Your task to perform on an android device: turn on data saver in the chrome app Image 0: 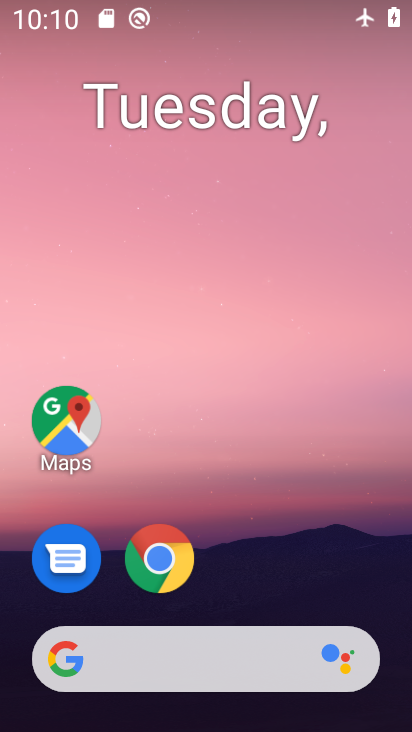
Step 0: drag from (331, 596) to (365, 49)
Your task to perform on an android device: turn on data saver in the chrome app Image 1: 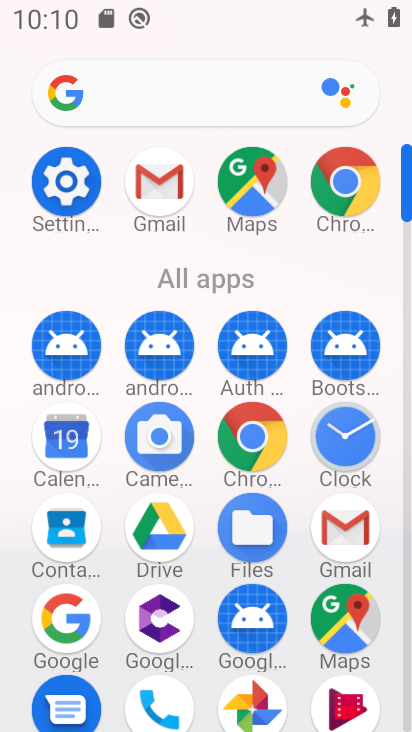
Step 1: click (352, 182)
Your task to perform on an android device: turn on data saver in the chrome app Image 2: 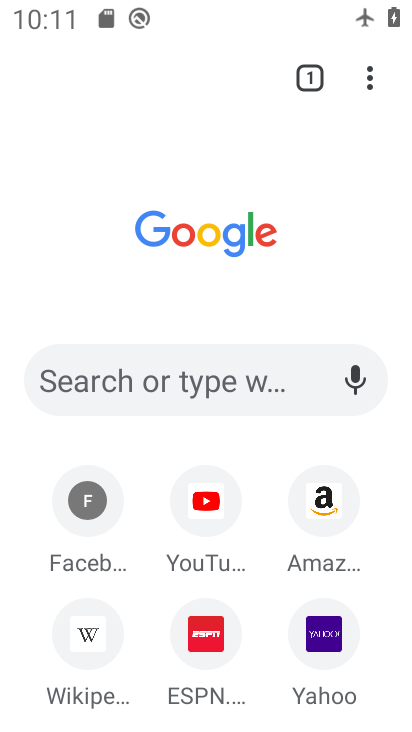
Step 2: click (371, 87)
Your task to perform on an android device: turn on data saver in the chrome app Image 3: 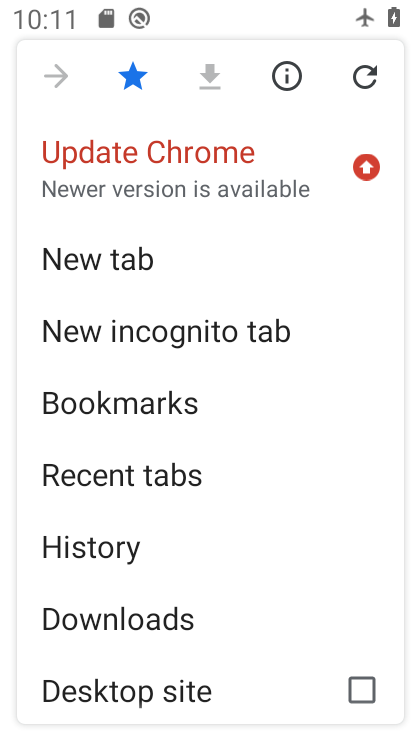
Step 3: drag from (336, 403) to (342, 306)
Your task to perform on an android device: turn on data saver in the chrome app Image 4: 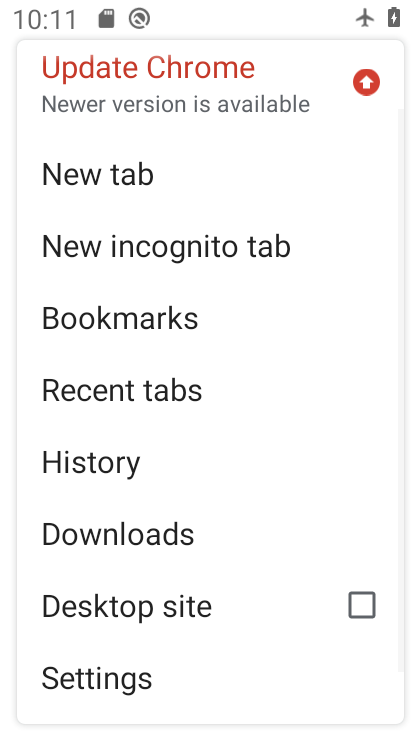
Step 4: drag from (321, 407) to (325, 329)
Your task to perform on an android device: turn on data saver in the chrome app Image 5: 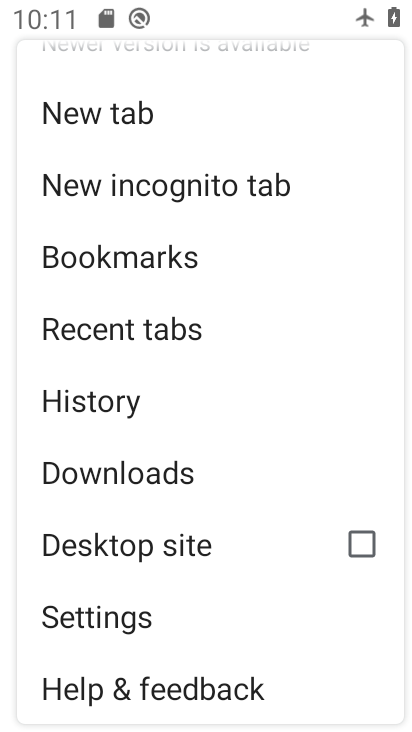
Step 5: drag from (306, 405) to (307, 326)
Your task to perform on an android device: turn on data saver in the chrome app Image 6: 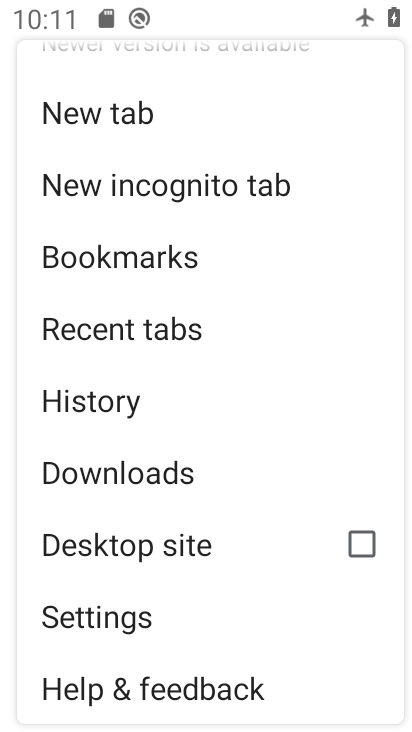
Step 6: click (231, 585)
Your task to perform on an android device: turn on data saver in the chrome app Image 7: 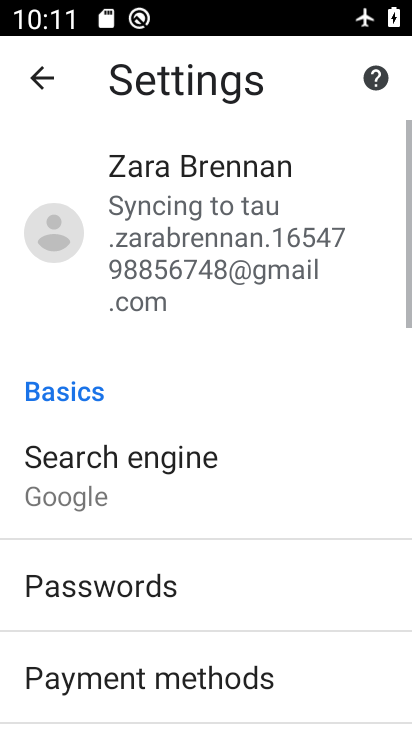
Step 7: drag from (294, 569) to (307, 487)
Your task to perform on an android device: turn on data saver in the chrome app Image 8: 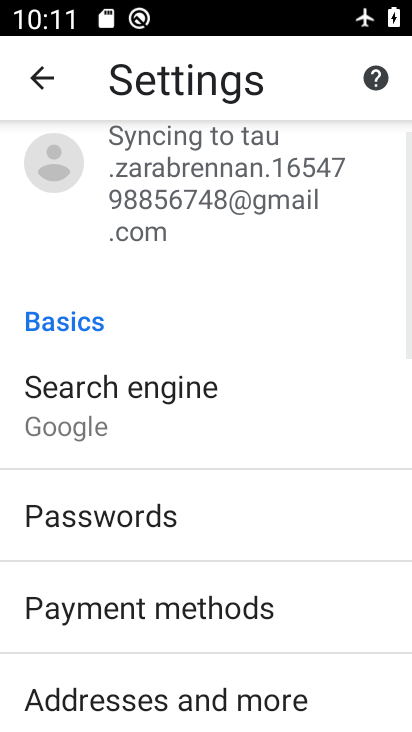
Step 8: drag from (318, 560) to (327, 449)
Your task to perform on an android device: turn on data saver in the chrome app Image 9: 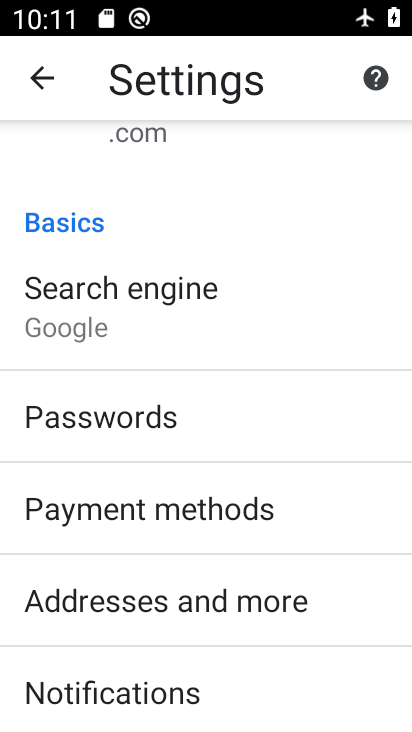
Step 9: drag from (340, 542) to (344, 442)
Your task to perform on an android device: turn on data saver in the chrome app Image 10: 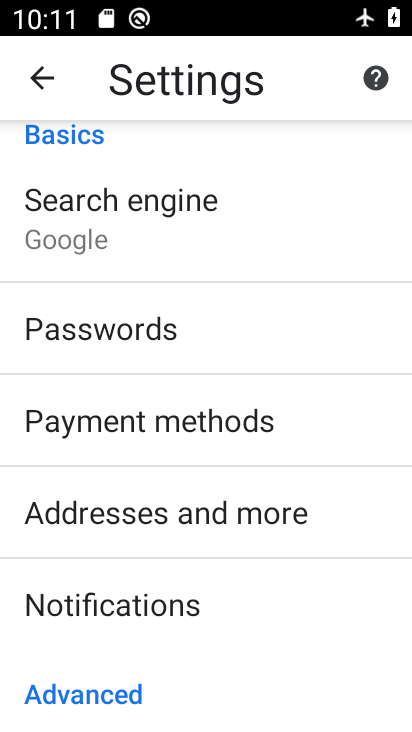
Step 10: drag from (345, 536) to (352, 445)
Your task to perform on an android device: turn on data saver in the chrome app Image 11: 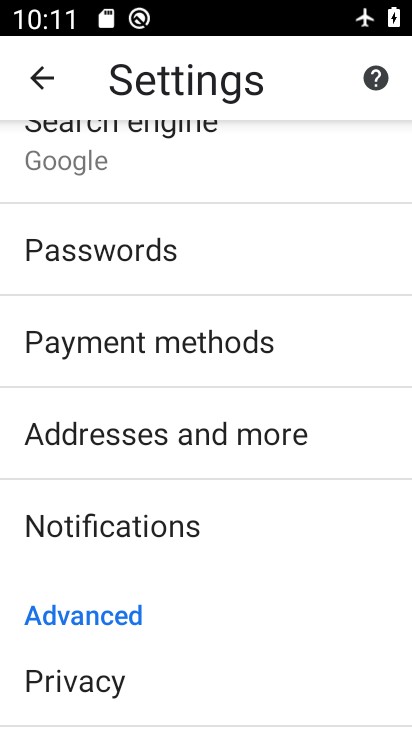
Step 11: drag from (352, 541) to (356, 459)
Your task to perform on an android device: turn on data saver in the chrome app Image 12: 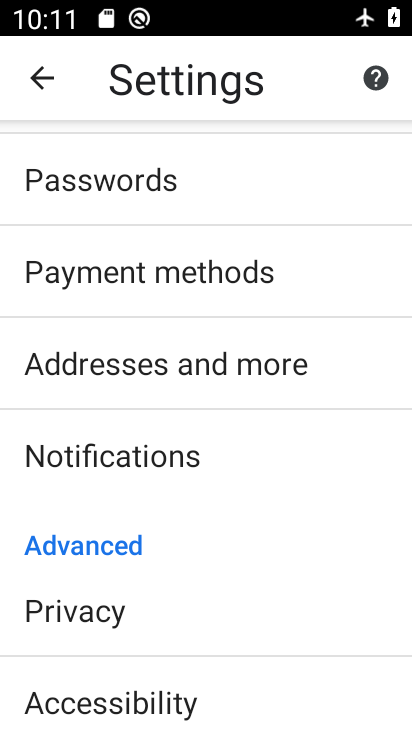
Step 12: drag from (335, 556) to (336, 474)
Your task to perform on an android device: turn on data saver in the chrome app Image 13: 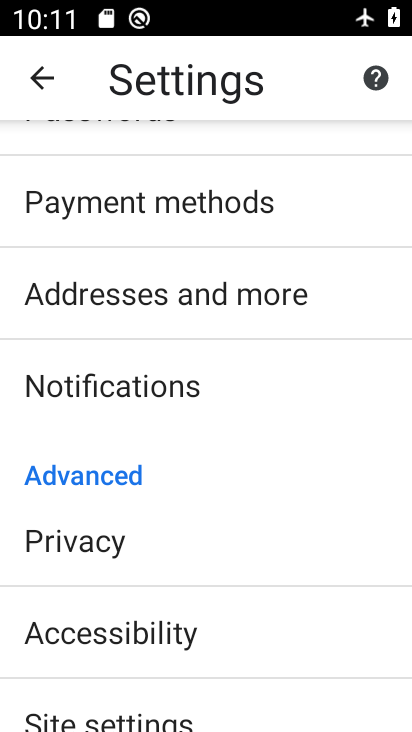
Step 13: drag from (334, 570) to (336, 431)
Your task to perform on an android device: turn on data saver in the chrome app Image 14: 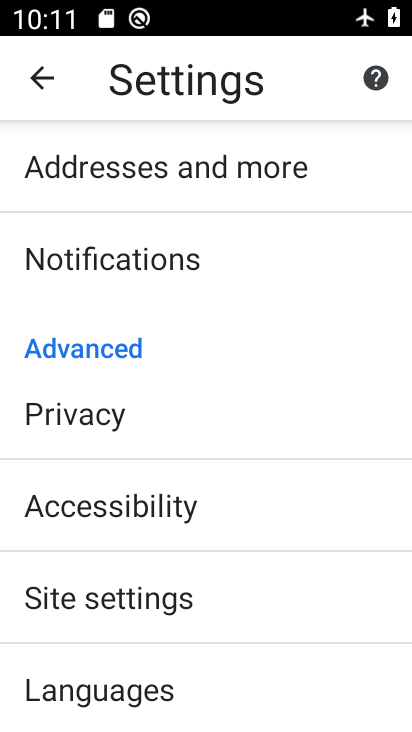
Step 14: drag from (318, 539) to (318, 410)
Your task to perform on an android device: turn on data saver in the chrome app Image 15: 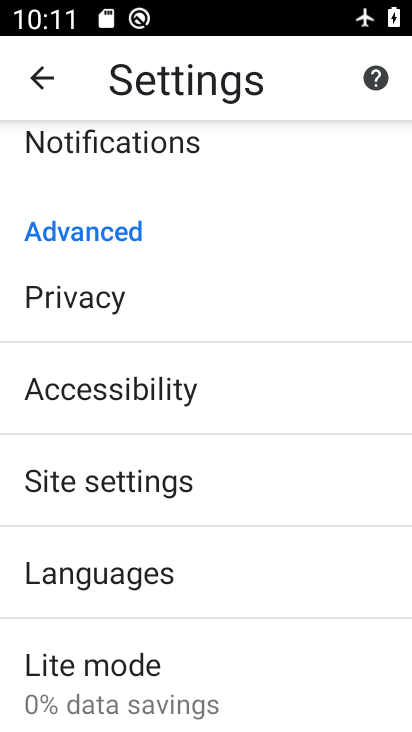
Step 15: click (298, 640)
Your task to perform on an android device: turn on data saver in the chrome app Image 16: 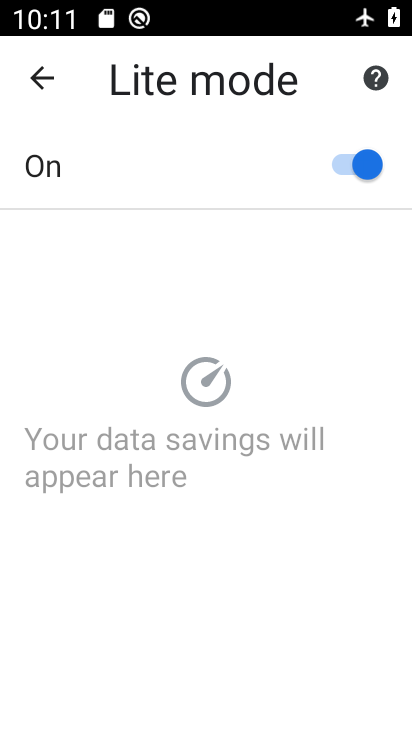
Step 16: task complete